Your task to perform on an android device: turn pop-ups off in chrome Image 0: 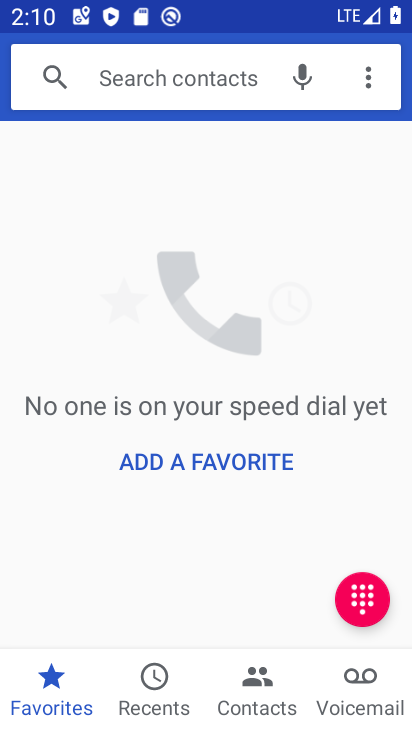
Step 0: press home button
Your task to perform on an android device: turn pop-ups off in chrome Image 1: 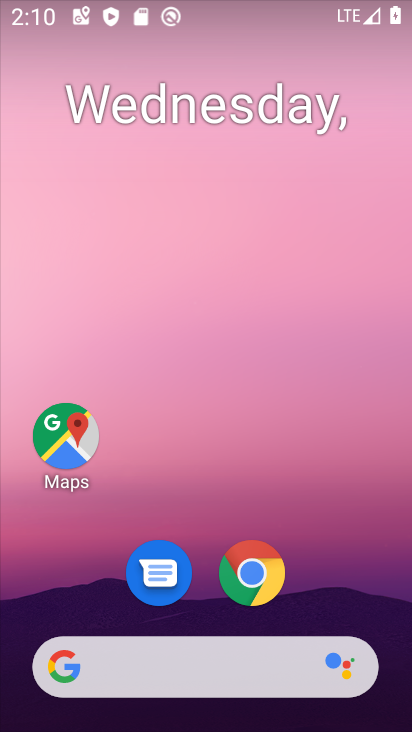
Step 1: drag from (206, 592) to (212, 169)
Your task to perform on an android device: turn pop-ups off in chrome Image 2: 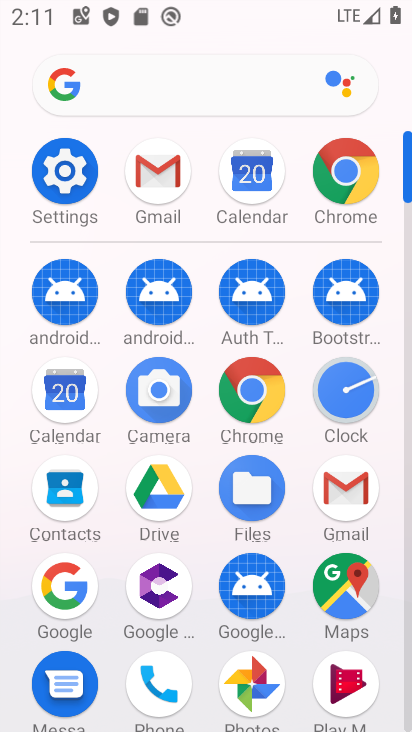
Step 2: click (339, 173)
Your task to perform on an android device: turn pop-ups off in chrome Image 3: 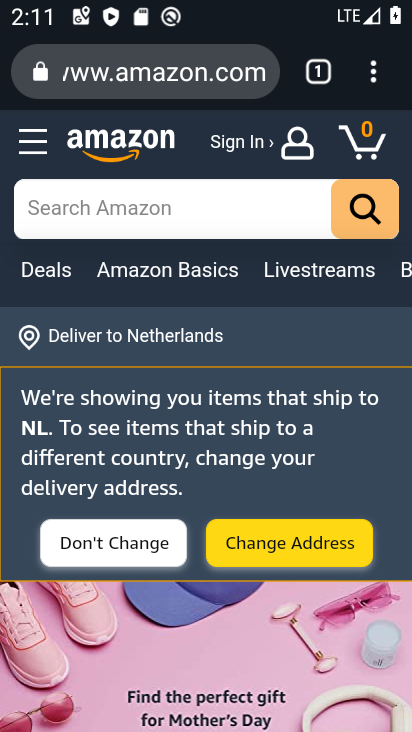
Step 3: click (367, 73)
Your task to perform on an android device: turn pop-ups off in chrome Image 4: 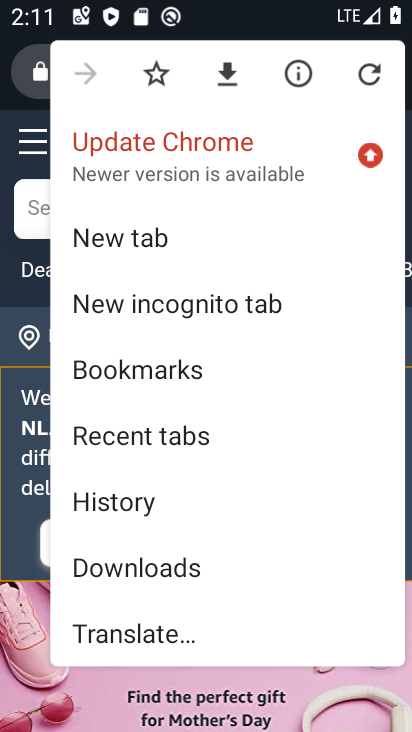
Step 4: drag from (167, 489) to (181, 135)
Your task to perform on an android device: turn pop-ups off in chrome Image 5: 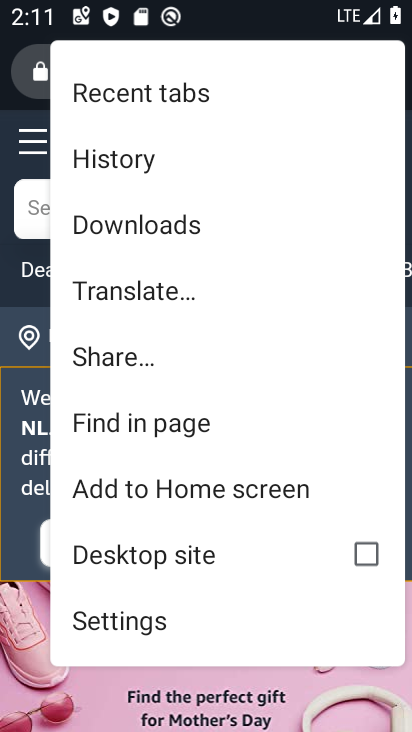
Step 5: click (137, 622)
Your task to perform on an android device: turn pop-ups off in chrome Image 6: 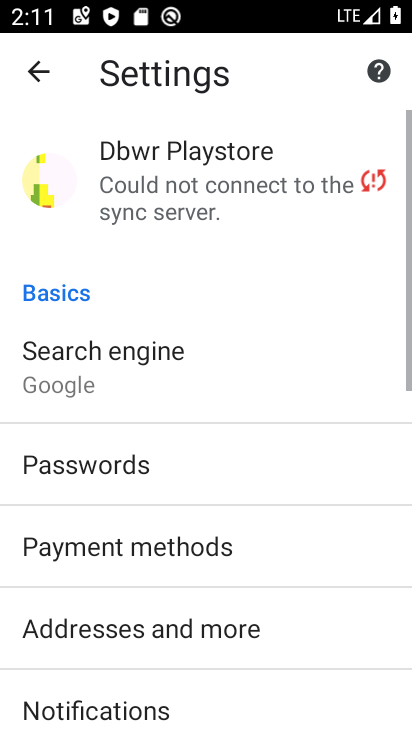
Step 6: drag from (204, 518) to (274, 30)
Your task to perform on an android device: turn pop-ups off in chrome Image 7: 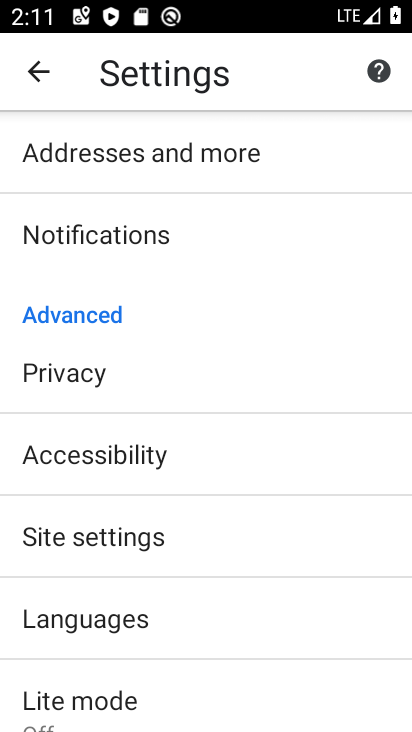
Step 7: click (151, 536)
Your task to perform on an android device: turn pop-ups off in chrome Image 8: 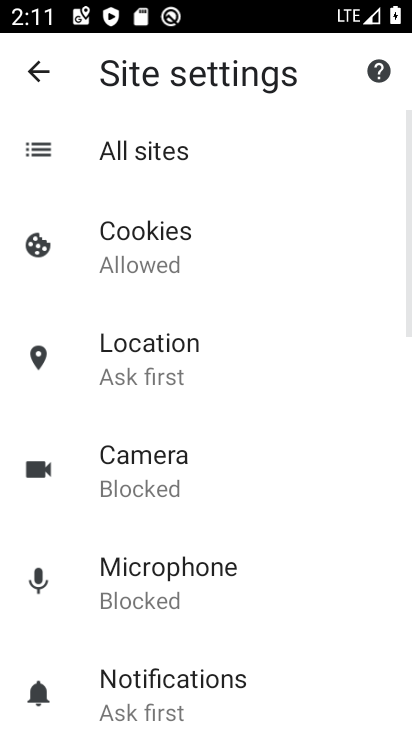
Step 8: drag from (247, 476) to (230, 195)
Your task to perform on an android device: turn pop-ups off in chrome Image 9: 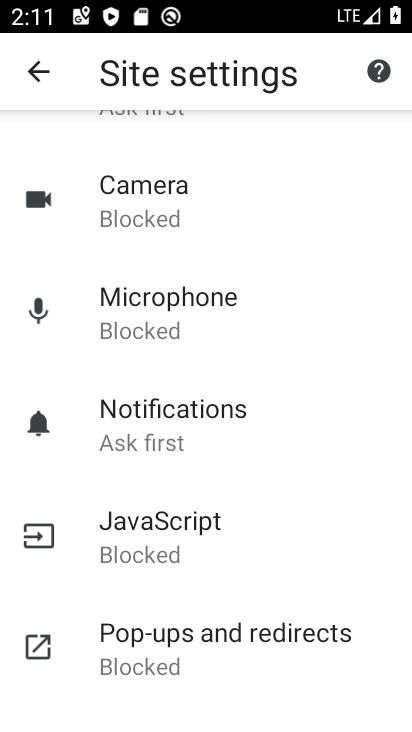
Step 9: drag from (230, 564) to (234, 360)
Your task to perform on an android device: turn pop-ups off in chrome Image 10: 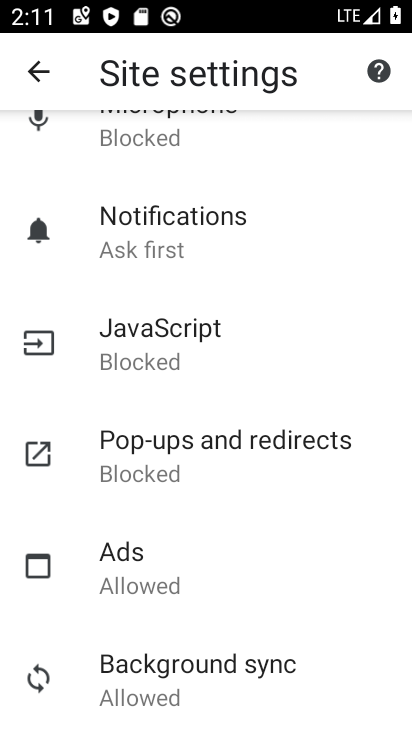
Step 10: click (189, 459)
Your task to perform on an android device: turn pop-ups off in chrome Image 11: 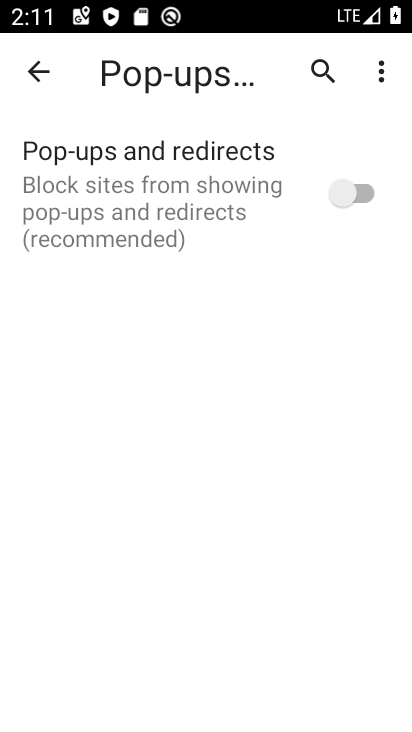
Step 11: task complete